Your task to perform on an android device: Open settings Image 0: 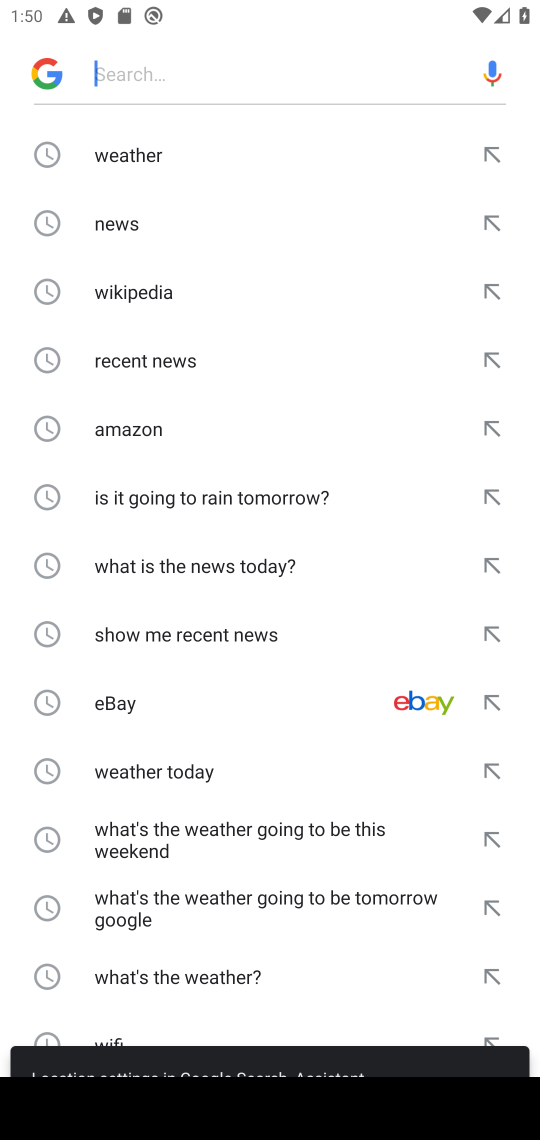
Step 0: click (157, 231)
Your task to perform on an android device: Open settings Image 1: 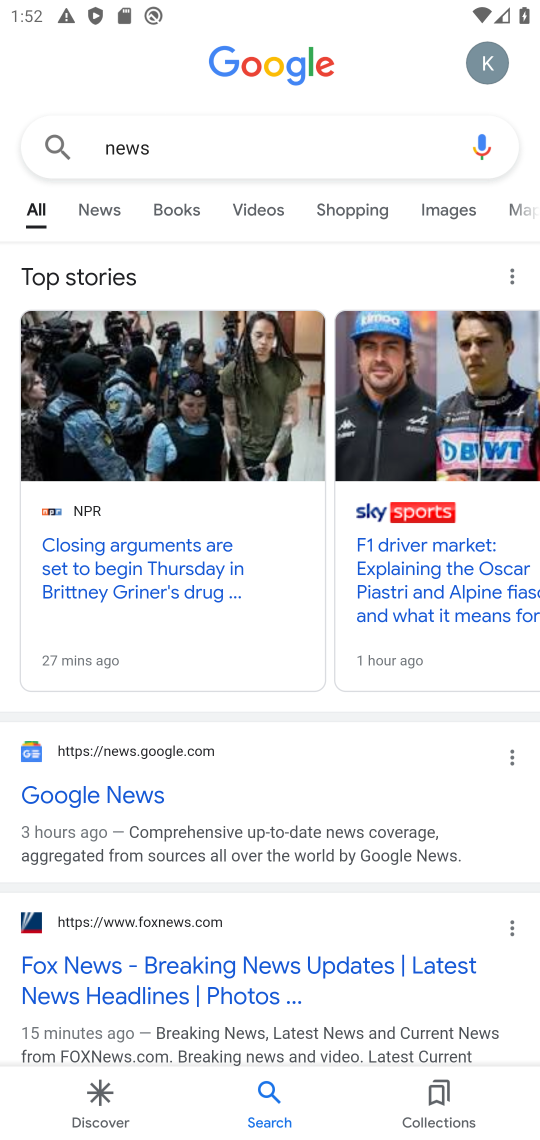
Step 1: press back button
Your task to perform on an android device: Open settings Image 2: 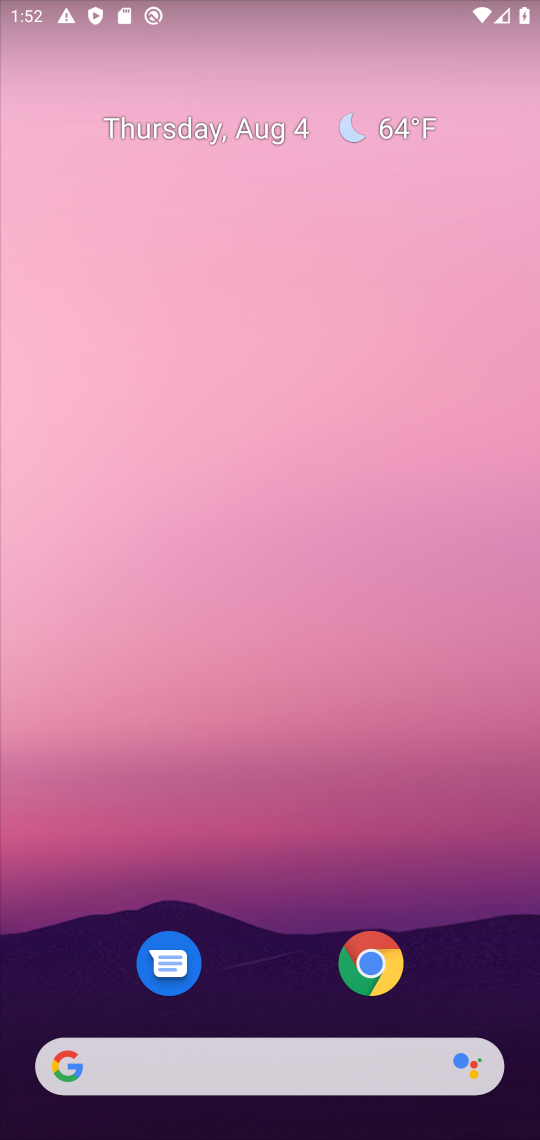
Step 2: drag from (259, 1072) to (232, 0)
Your task to perform on an android device: Open settings Image 3: 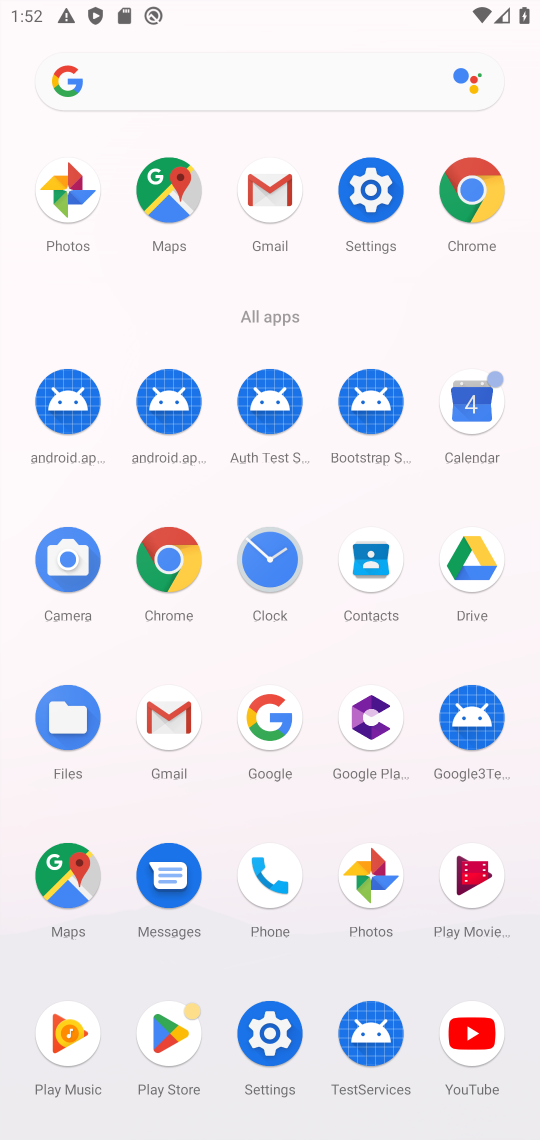
Step 3: click (384, 193)
Your task to perform on an android device: Open settings Image 4: 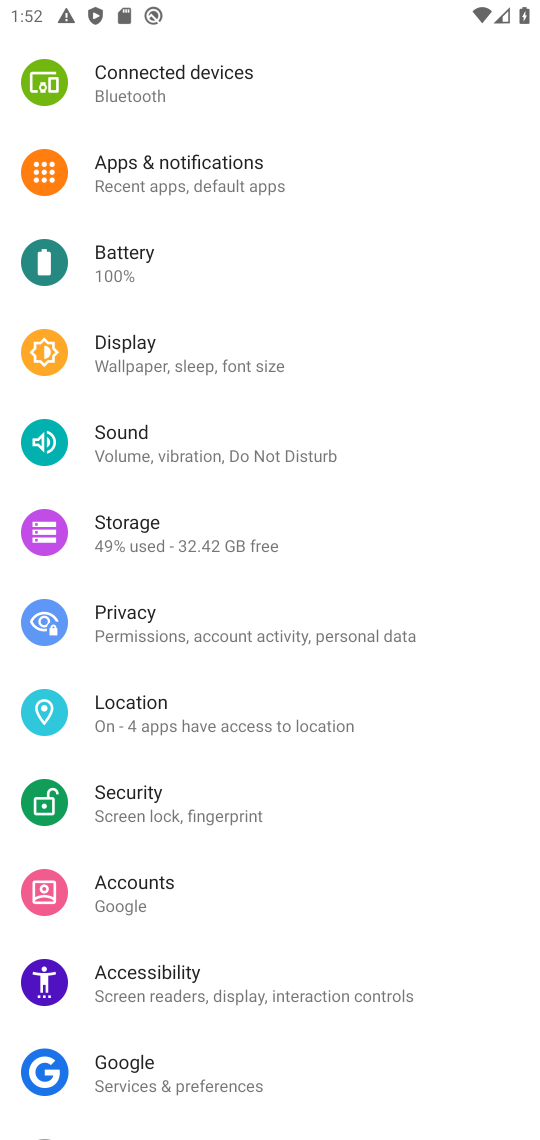
Step 4: task complete